Your task to perform on an android device: Open the calendar and show me this week's events? Image 0: 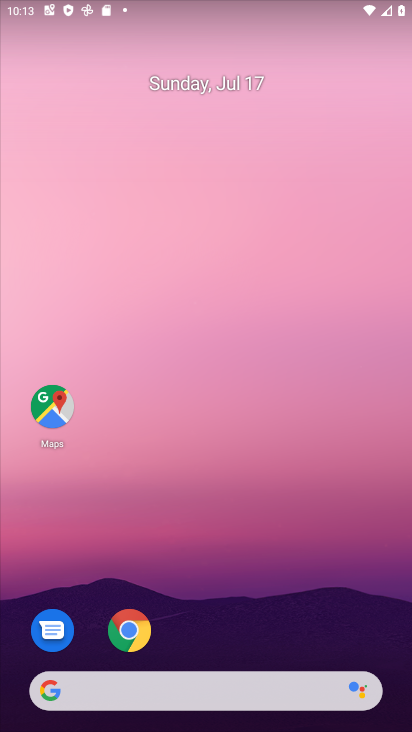
Step 0: drag from (225, 594) to (329, 5)
Your task to perform on an android device: Open the calendar and show me this week's events? Image 1: 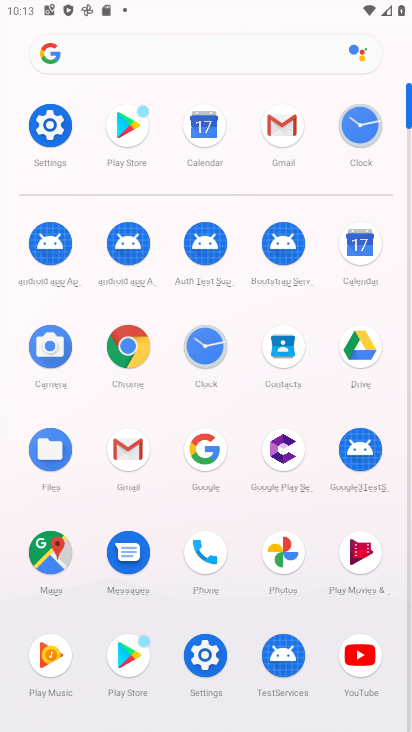
Step 1: click (355, 253)
Your task to perform on an android device: Open the calendar and show me this week's events? Image 2: 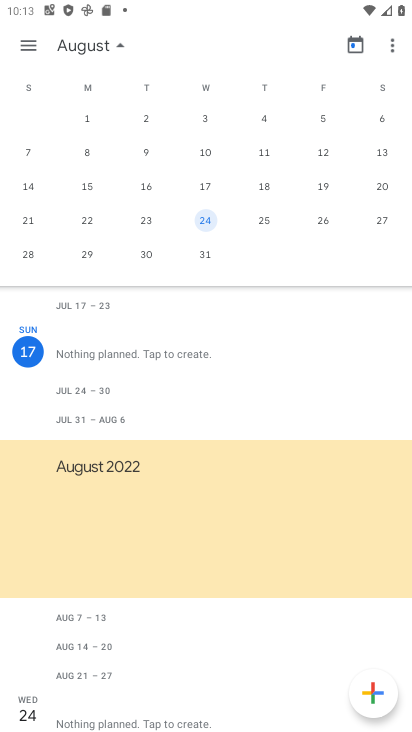
Step 2: task complete